Your task to perform on an android device: Open Google Chrome Image 0: 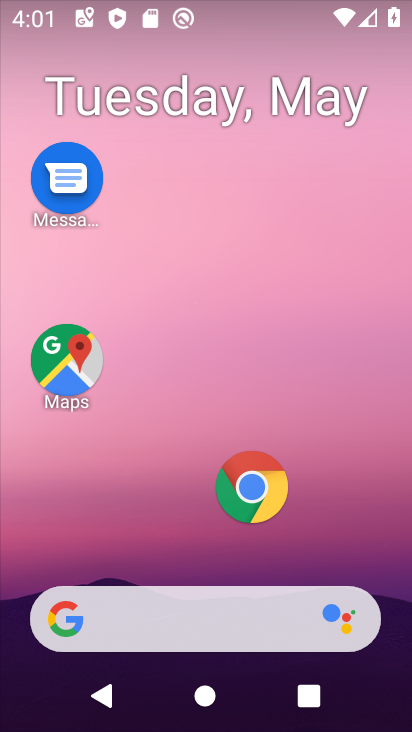
Step 0: click (198, 13)
Your task to perform on an android device: Open Google Chrome Image 1: 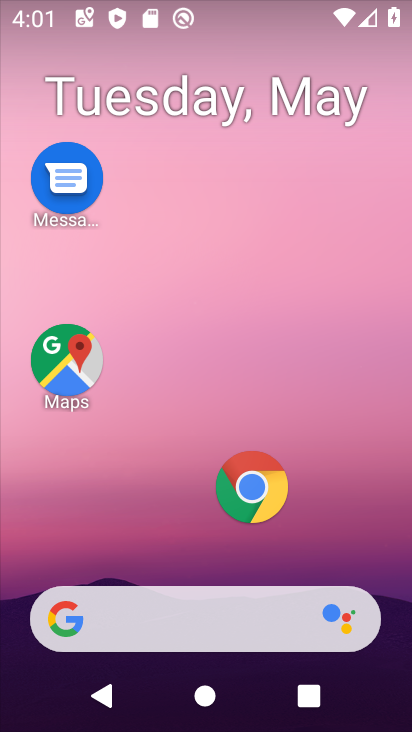
Step 1: click (247, 481)
Your task to perform on an android device: Open Google Chrome Image 2: 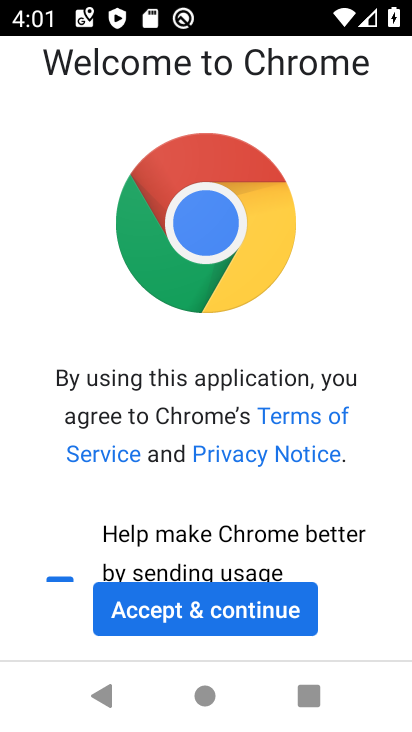
Step 2: click (165, 616)
Your task to perform on an android device: Open Google Chrome Image 3: 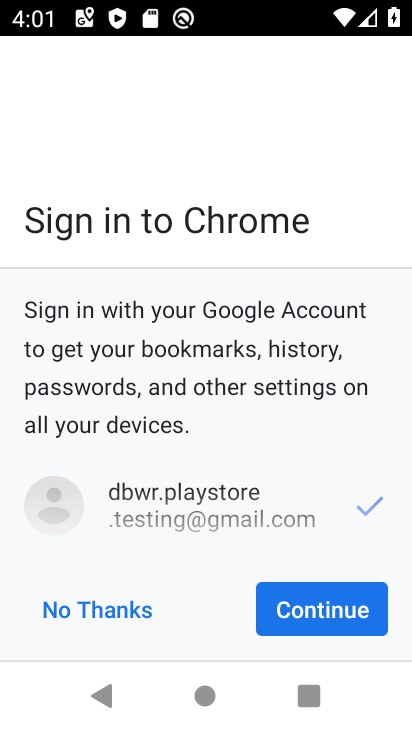
Step 3: click (313, 617)
Your task to perform on an android device: Open Google Chrome Image 4: 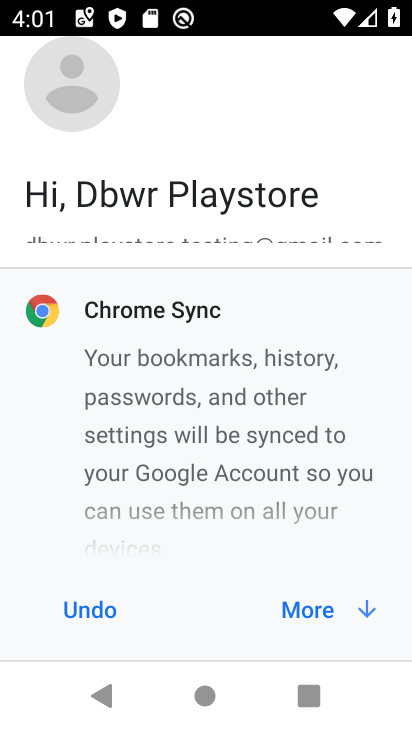
Step 4: click (311, 614)
Your task to perform on an android device: Open Google Chrome Image 5: 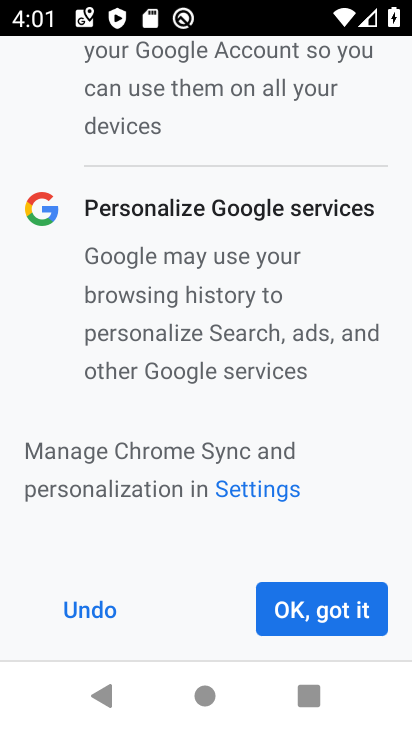
Step 5: click (311, 614)
Your task to perform on an android device: Open Google Chrome Image 6: 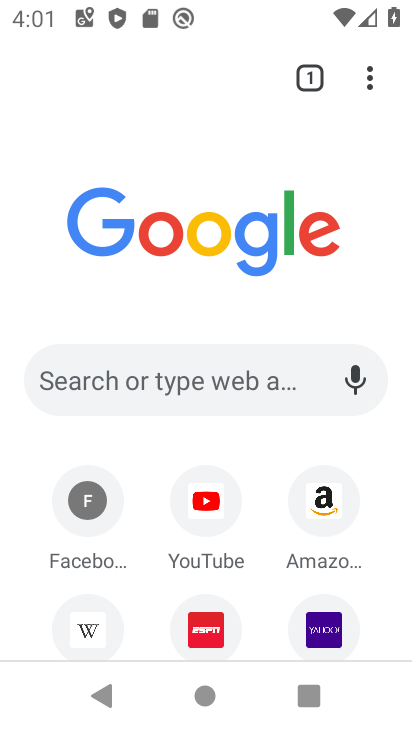
Step 6: task complete